Your task to perform on an android device: turn off javascript in the chrome app Image 0: 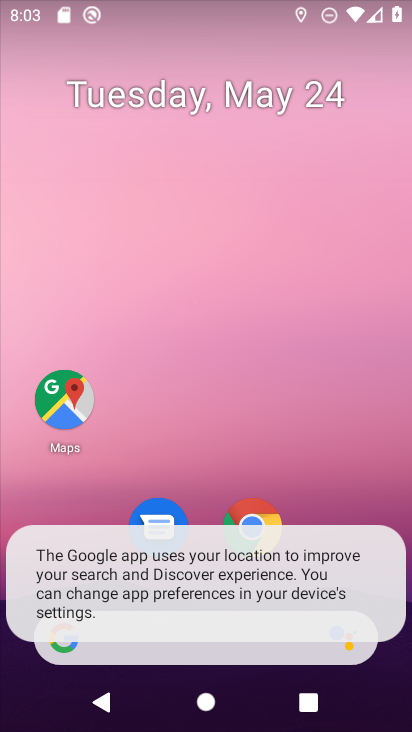
Step 0: drag from (330, 477) to (268, 67)
Your task to perform on an android device: turn off javascript in the chrome app Image 1: 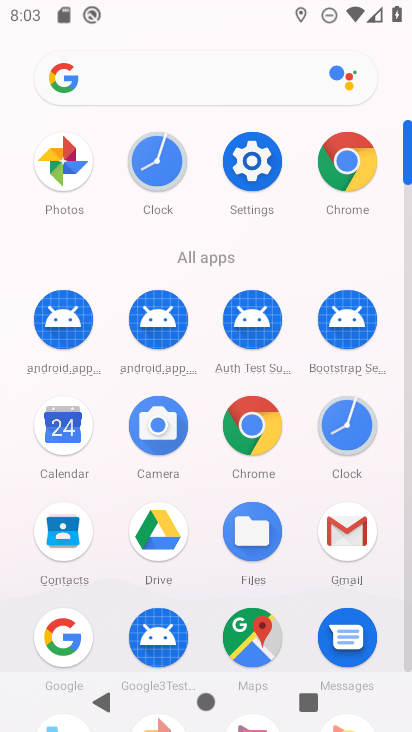
Step 1: click (346, 159)
Your task to perform on an android device: turn off javascript in the chrome app Image 2: 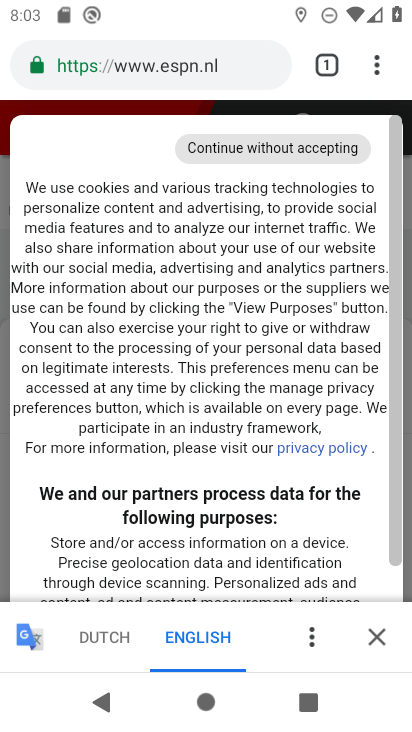
Step 2: drag from (371, 67) to (167, 560)
Your task to perform on an android device: turn off javascript in the chrome app Image 3: 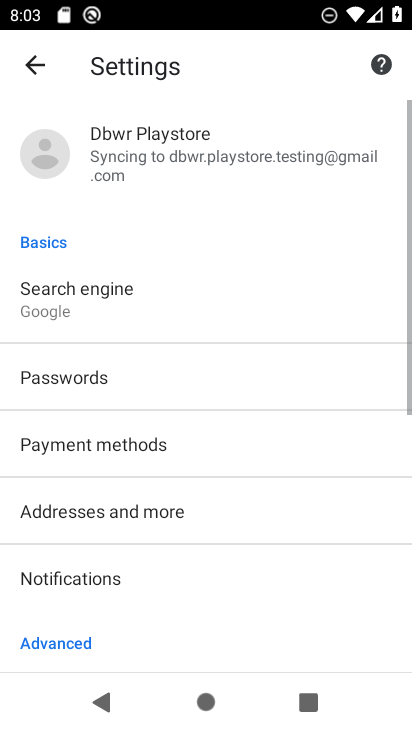
Step 3: drag from (167, 560) to (154, 214)
Your task to perform on an android device: turn off javascript in the chrome app Image 4: 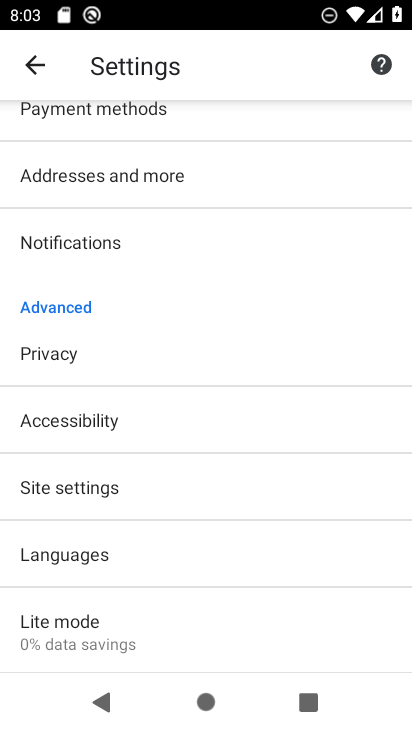
Step 4: click (58, 500)
Your task to perform on an android device: turn off javascript in the chrome app Image 5: 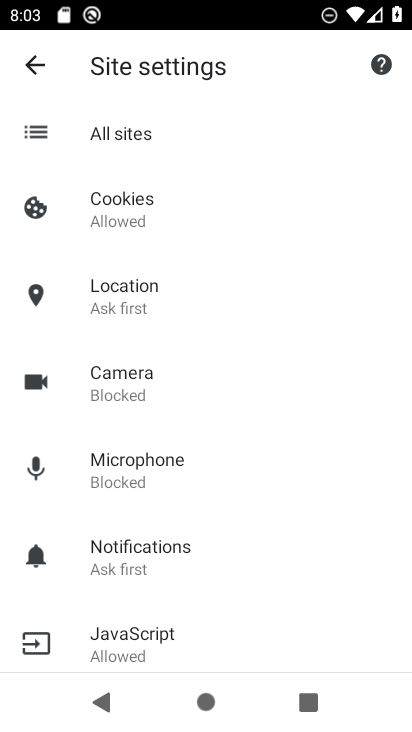
Step 5: drag from (258, 439) to (305, 148)
Your task to perform on an android device: turn off javascript in the chrome app Image 6: 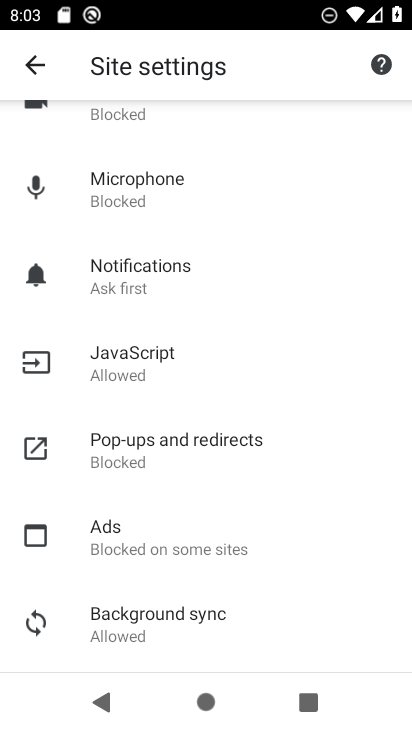
Step 6: click (104, 361)
Your task to perform on an android device: turn off javascript in the chrome app Image 7: 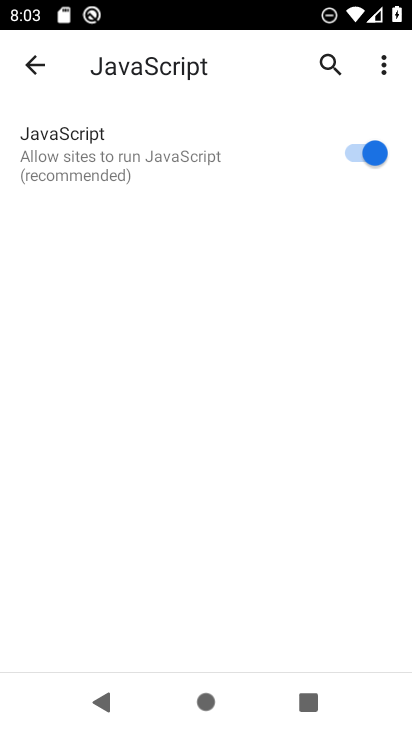
Step 7: click (361, 148)
Your task to perform on an android device: turn off javascript in the chrome app Image 8: 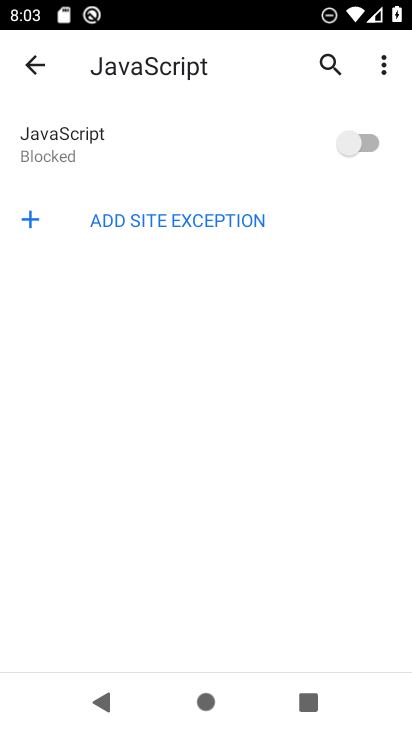
Step 8: task complete